Your task to perform on an android device: clear history in the chrome app Image 0: 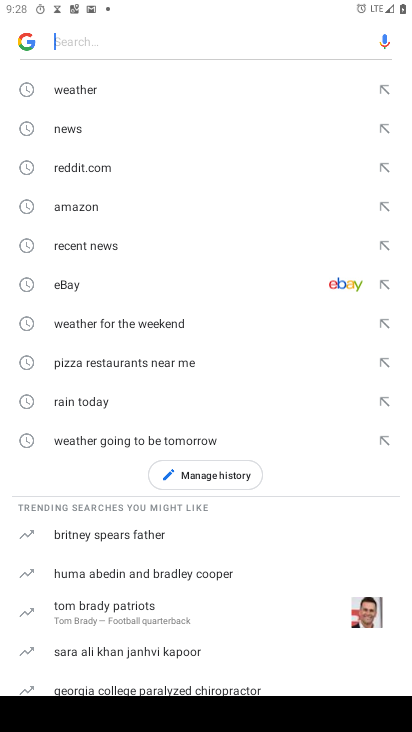
Step 0: press home button
Your task to perform on an android device: clear history in the chrome app Image 1: 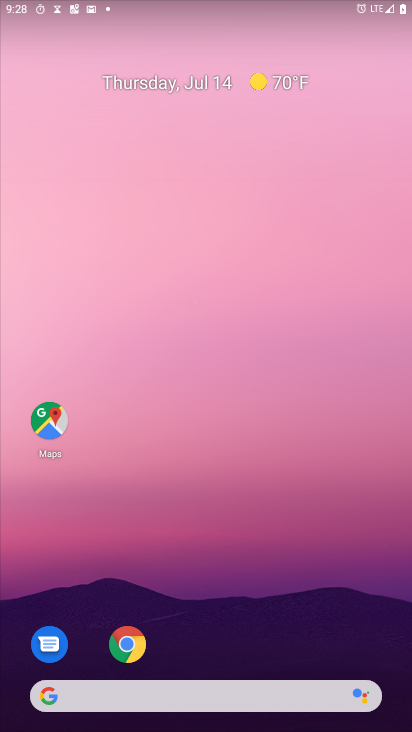
Step 1: click (126, 645)
Your task to perform on an android device: clear history in the chrome app Image 2: 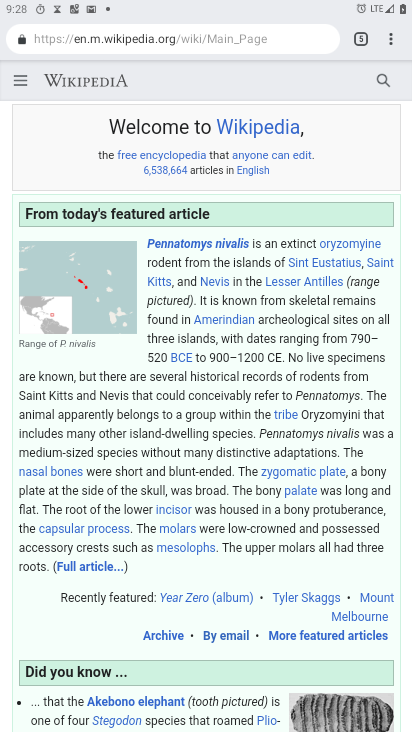
Step 2: drag from (390, 39) to (267, 272)
Your task to perform on an android device: clear history in the chrome app Image 3: 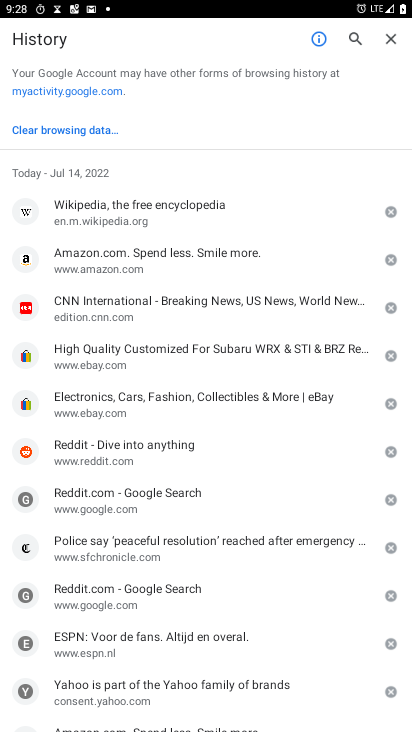
Step 3: click (73, 132)
Your task to perform on an android device: clear history in the chrome app Image 4: 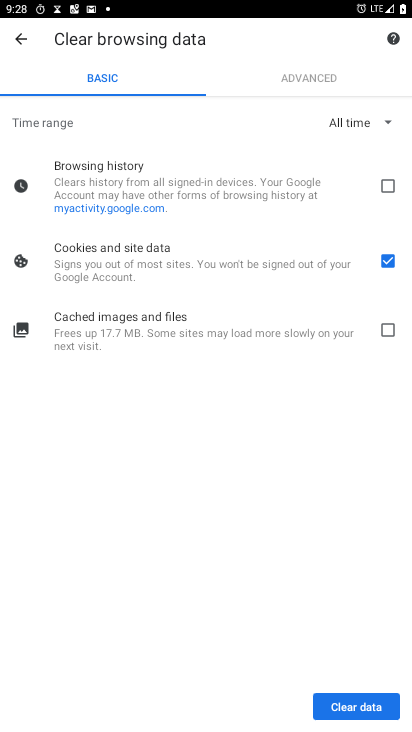
Step 4: click (379, 182)
Your task to perform on an android device: clear history in the chrome app Image 5: 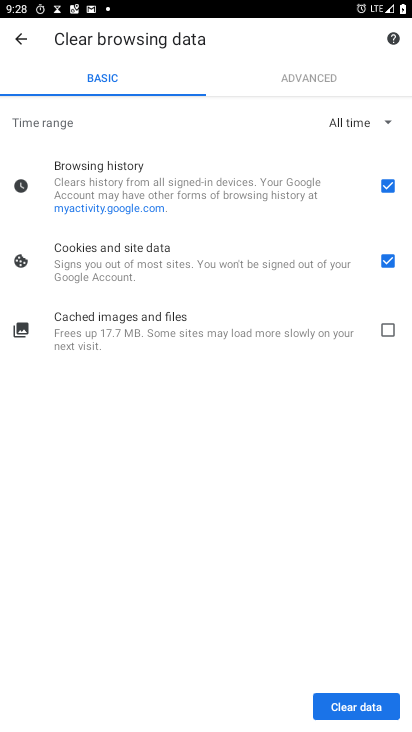
Step 5: click (389, 317)
Your task to perform on an android device: clear history in the chrome app Image 6: 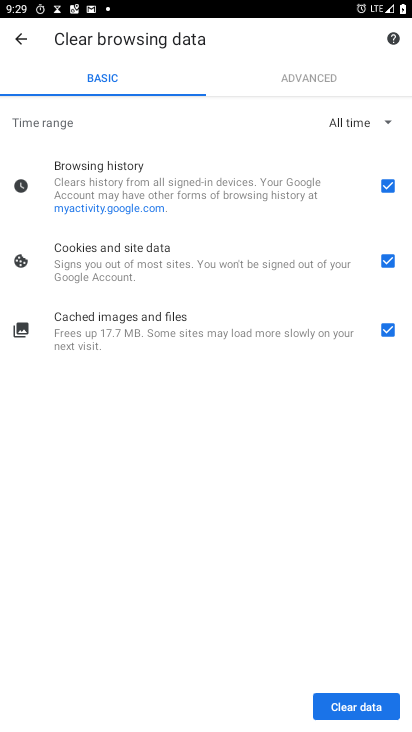
Step 6: click (377, 707)
Your task to perform on an android device: clear history in the chrome app Image 7: 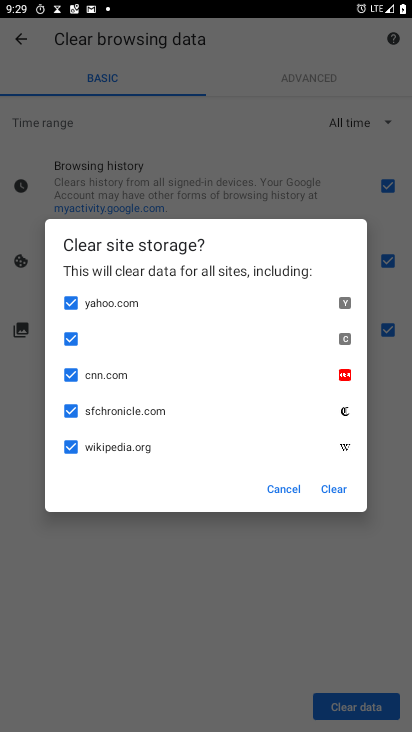
Step 7: click (328, 487)
Your task to perform on an android device: clear history in the chrome app Image 8: 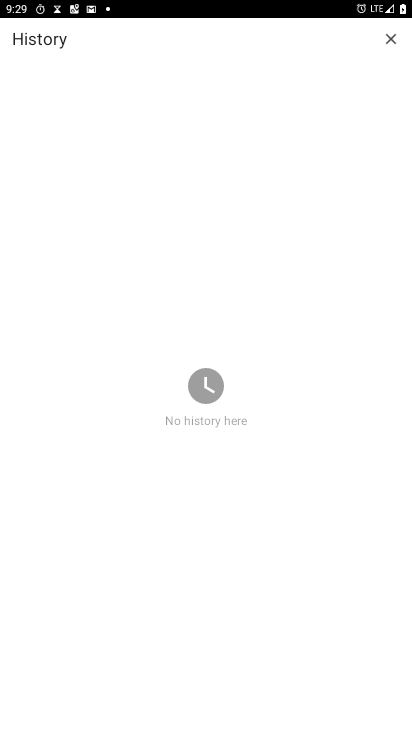
Step 8: task complete